Your task to perform on an android device: toggle notifications settings in the gmail app Image 0: 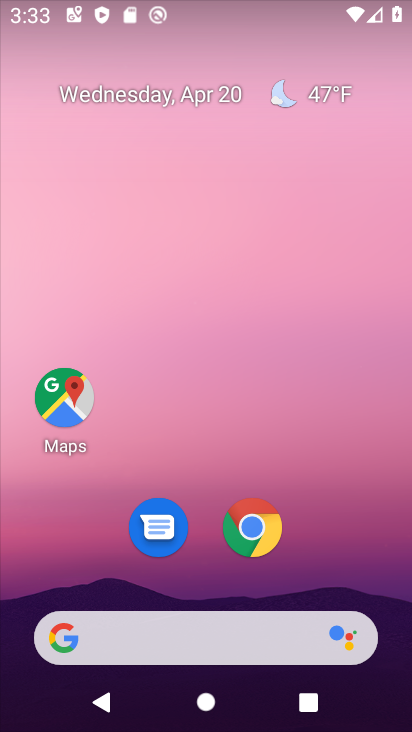
Step 0: drag from (315, 549) to (352, 141)
Your task to perform on an android device: toggle notifications settings in the gmail app Image 1: 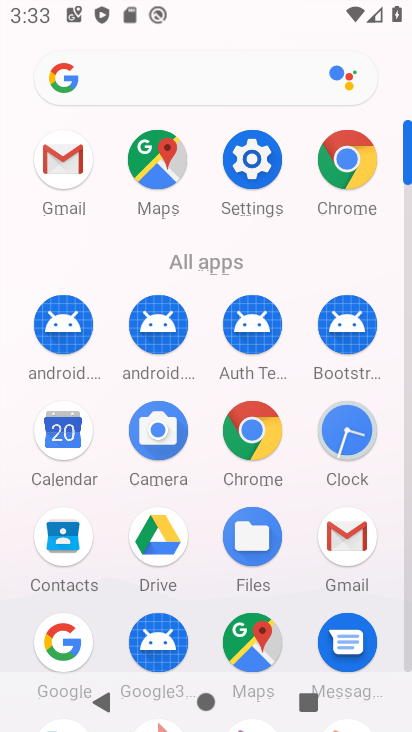
Step 1: click (262, 179)
Your task to perform on an android device: toggle notifications settings in the gmail app Image 2: 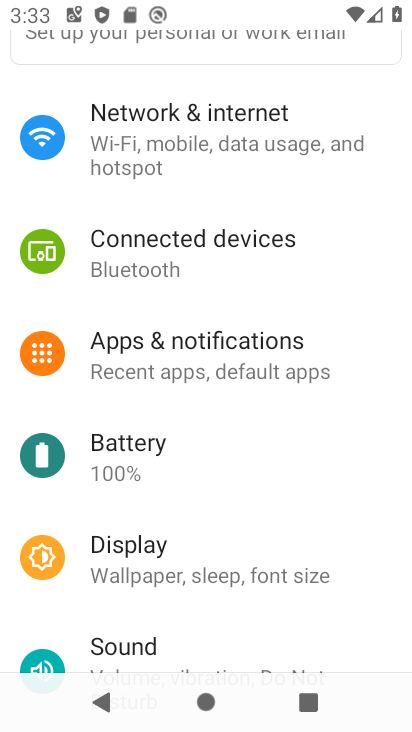
Step 2: drag from (258, 140) to (275, 237)
Your task to perform on an android device: toggle notifications settings in the gmail app Image 3: 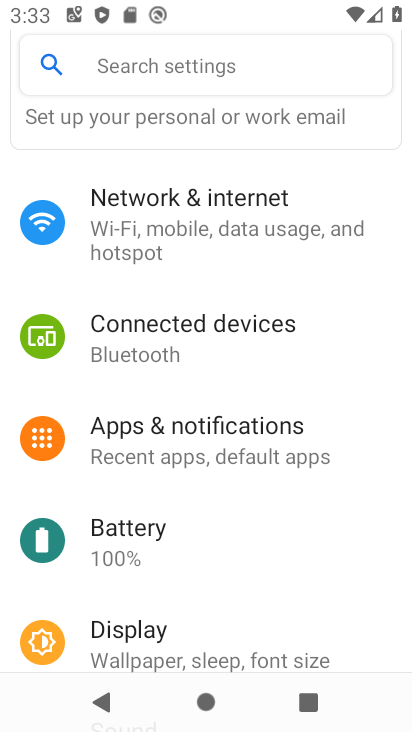
Step 3: click (258, 459)
Your task to perform on an android device: toggle notifications settings in the gmail app Image 4: 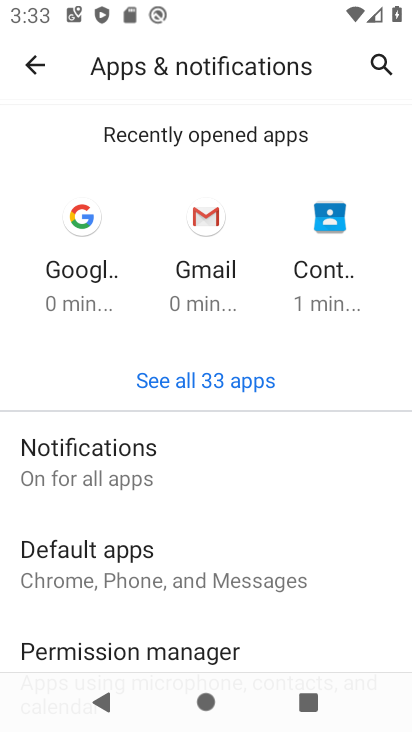
Step 4: click (154, 461)
Your task to perform on an android device: toggle notifications settings in the gmail app Image 5: 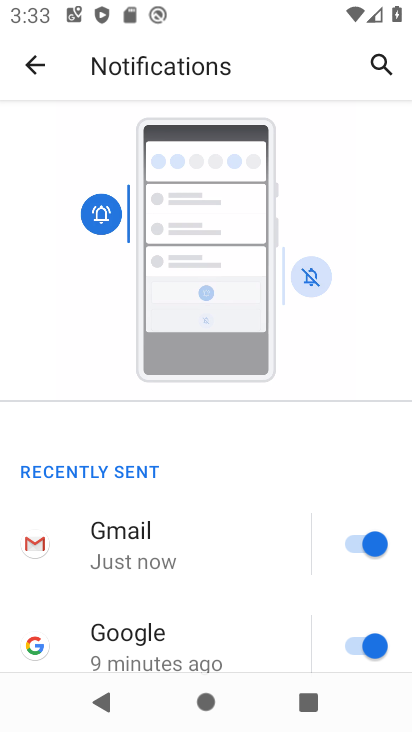
Step 5: click (378, 546)
Your task to perform on an android device: toggle notifications settings in the gmail app Image 6: 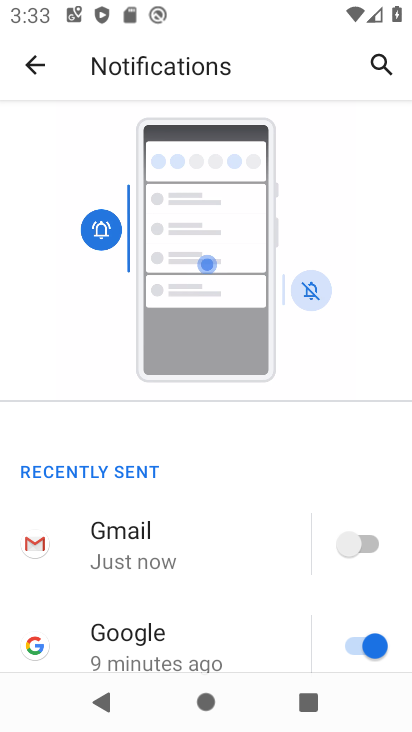
Step 6: task complete